Your task to perform on an android device: empty trash in the gmail app Image 0: 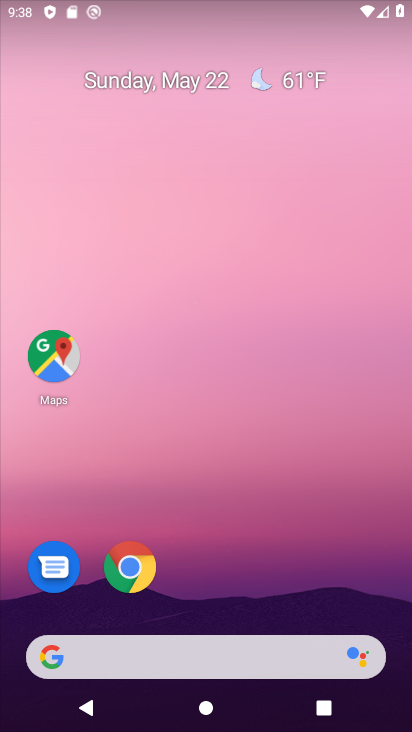
Step 0: drag from (223, 630) to (169, 34)
Your task to perform on an android device: empty trash in the gmail app Image 1: 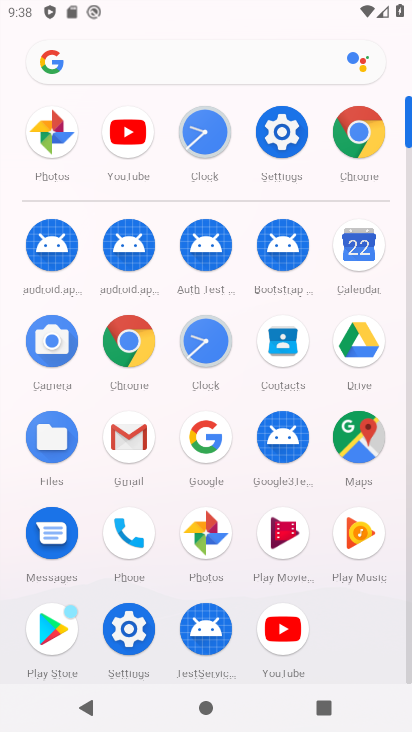
Step 1: click (143, 440)
Your task to perform on an android device: empty trash in the gmail app Image 2: 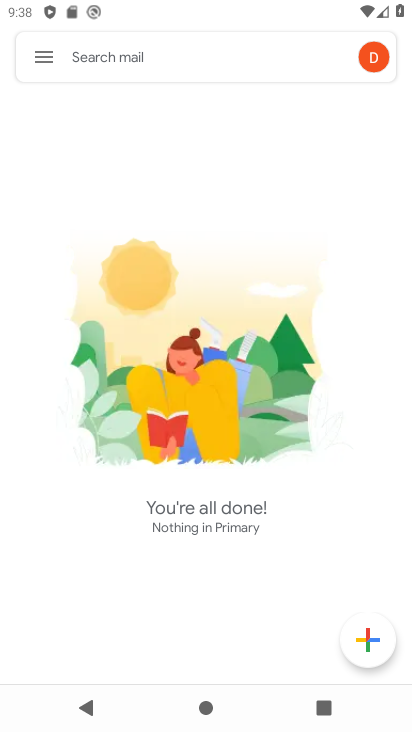
Step 2: click (39, 45)
Your task to perform on an android device: empty trash in the gmail app Image 3: 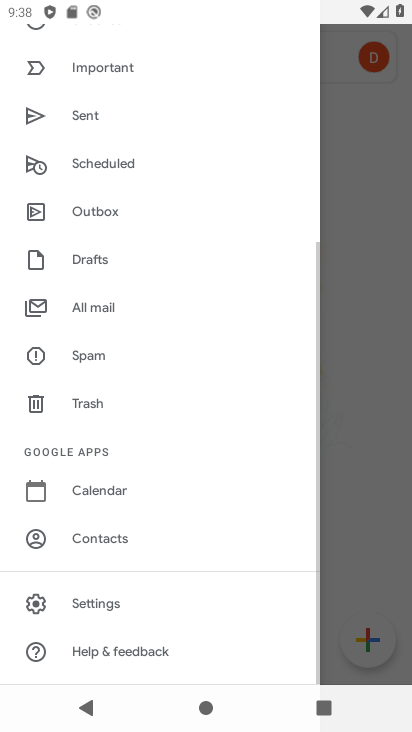
Step 3: click (69, 407)
Your task to perform on an android device: empty trash in the gmail app Image 4: 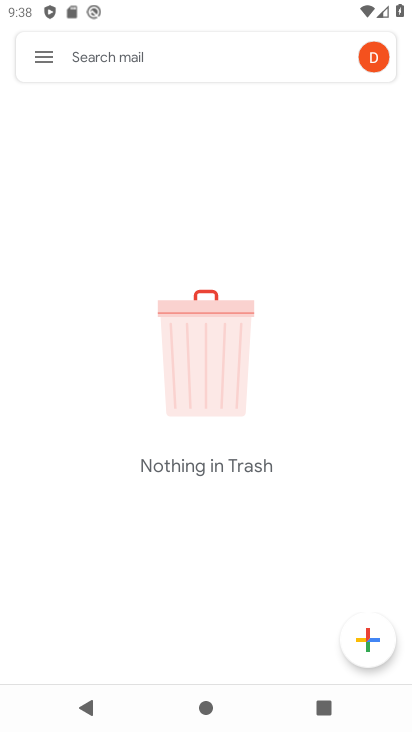
Step 4: task complete